Your task to perform on an android device: Open Maps and search for coffee Image 0: 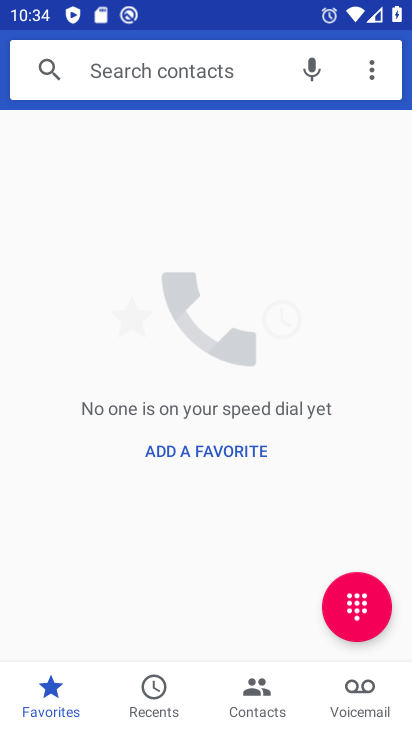
Step 0: press home button
Your task to perform on an android device: Open Maps and search for coffee Image 1: 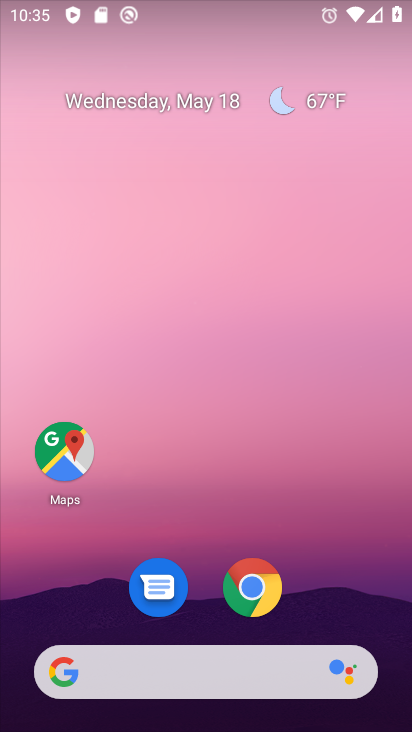
Step 1: click (52, 476)
Your task to perform on an android device: Open Maps and search for coffee Image 2: 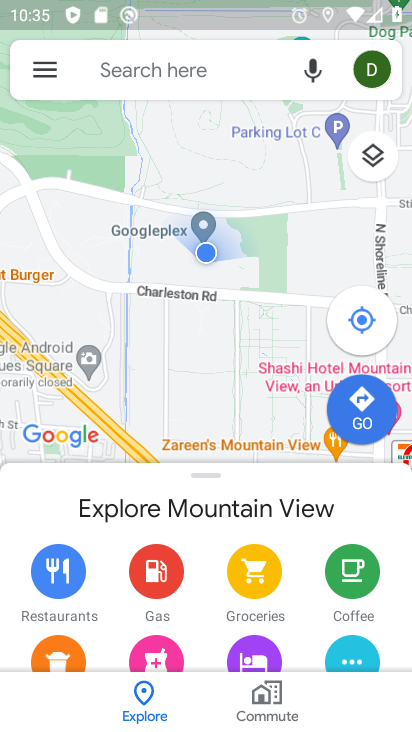
Step 2: click (154, 66)
Your task to perform on an android device: Open Maps and search for coffee Image 3: 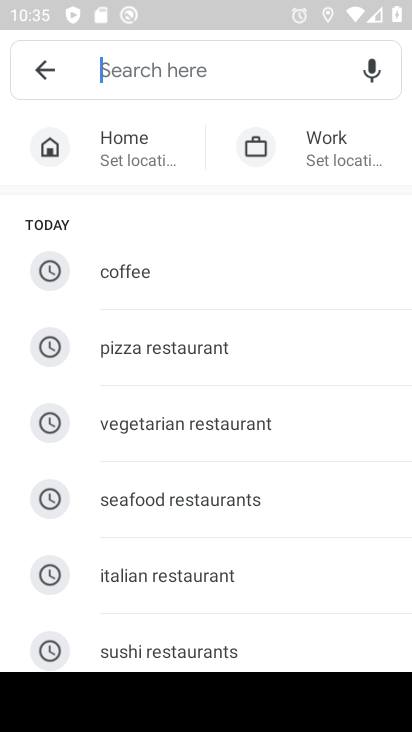
Step 3: click (124, 276)
Your task to perform on an android device: Open Maps and search for coffee Image 4: 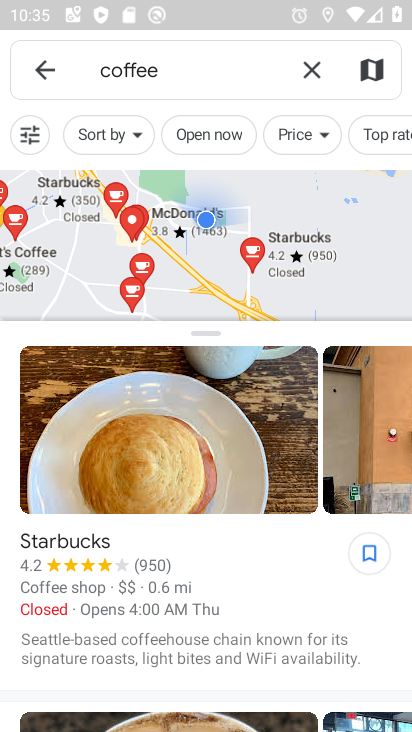
Step 4: task complete